Your task to perform on an android device: all mails in gmail Image 0: 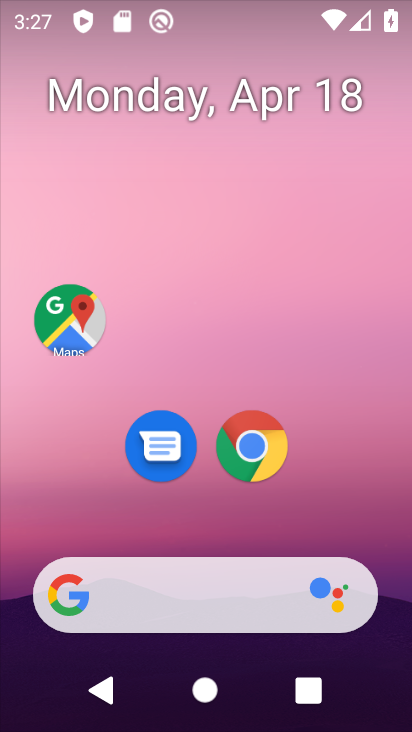
Step 0: drag from (281, 549) to (304, 127)
Your task to perform on an android device: all mails in gmail Image 1: 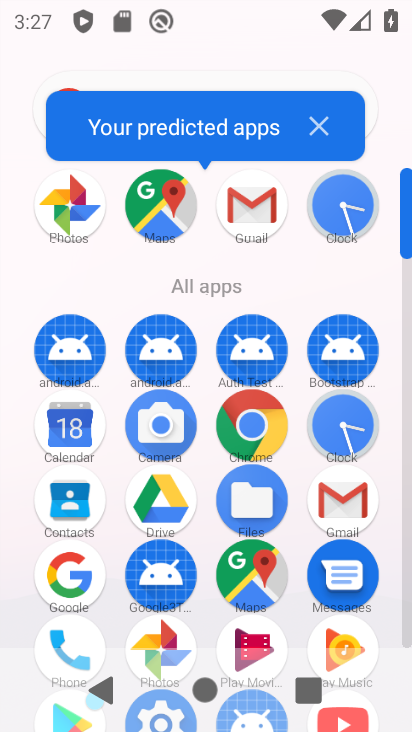
Step 1: click (263, 208)
Your task to perform on an android device: all mails in gmail Image 2: 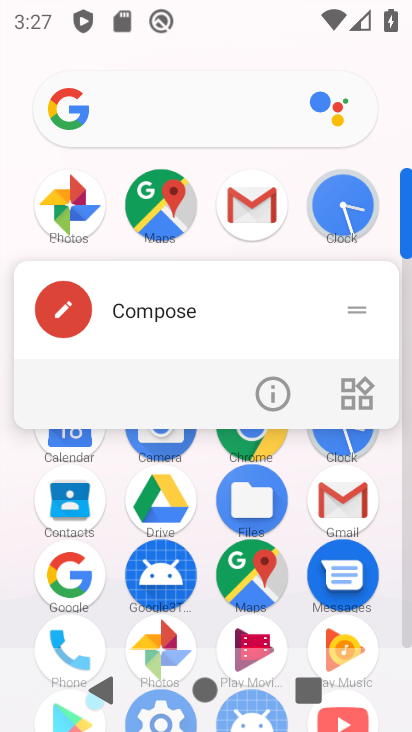
Step 2: click (264, 207)
Your task to perform on an android device: all mails in gmail Image 3: 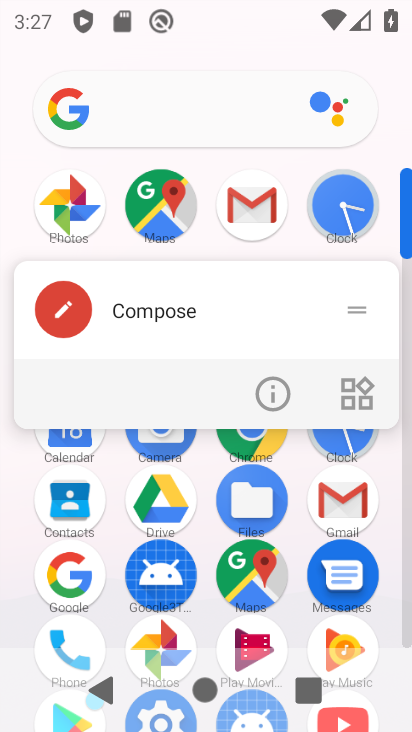
Step 3: click (265, 207)
Your task to perform on an android device: all mails in gmail Image 4: 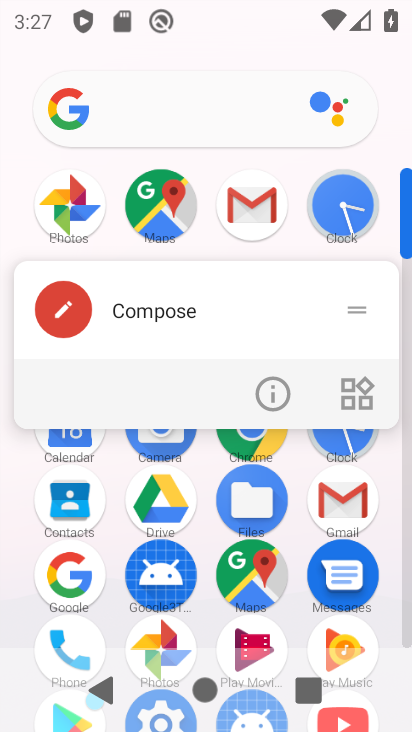
Step 4: click (267, 187)
Your task to perform on an android device: all mails in gmail Image 5: 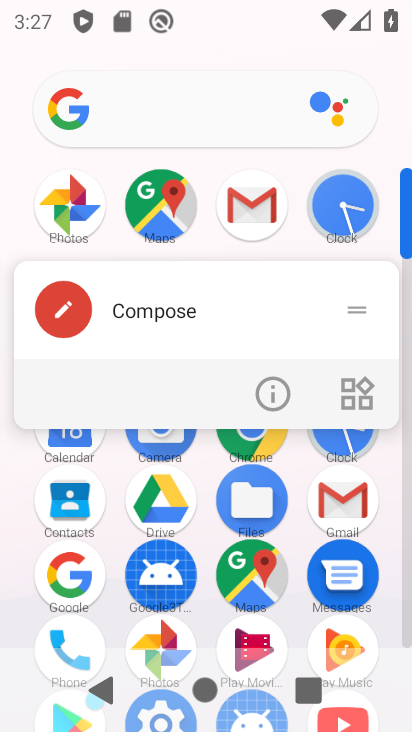
Step 5: click (268, 193)
Your task to perform on an android device: all mails in gmail Image 6: 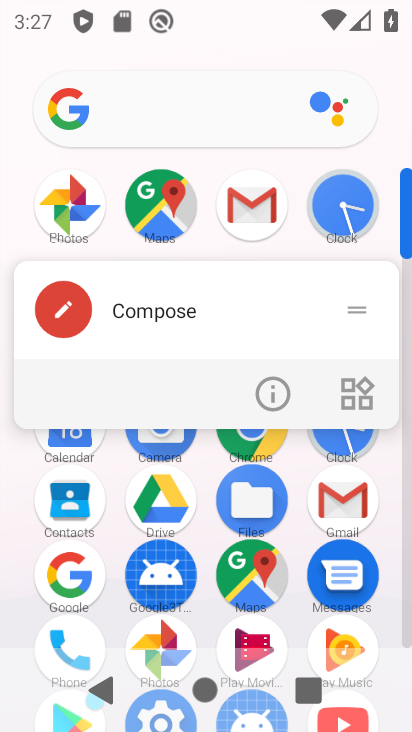
Step 6: click (259, 217)
Your task to perform on an android device: all mails in gmail Image 7: 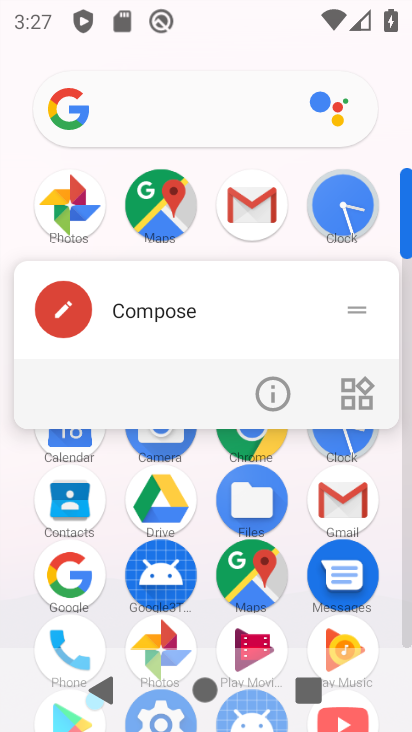
Step 7: click (259, 218)
Your task to perform on an android device: all mails in gmail Image 8: 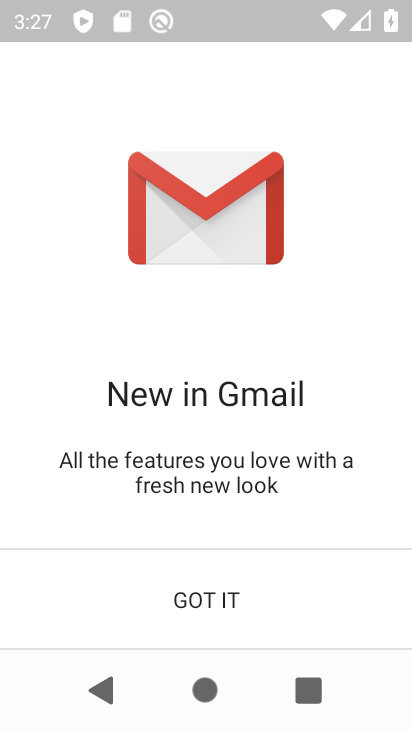
Step 8: click (229, 585)
Your task to perform on an android device: all mails in gmail Image 9: 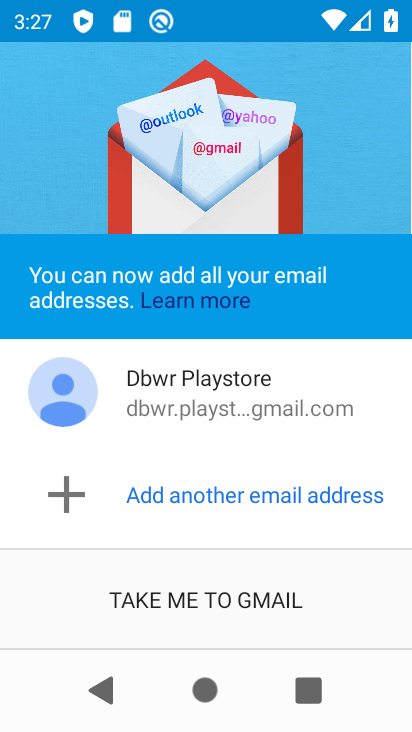
Step 9: click (256, 604)
Your task to perform on an android device: all mails in gmail Image 10: 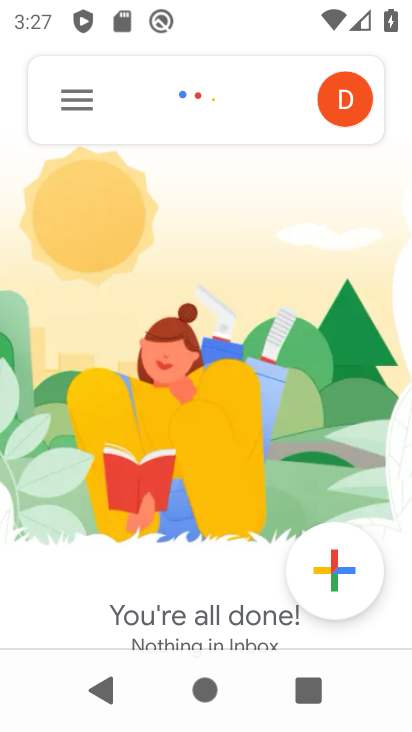
Step 10: click (81, 102)
Your task to perform on an android device: all mails in gmail Image 11: 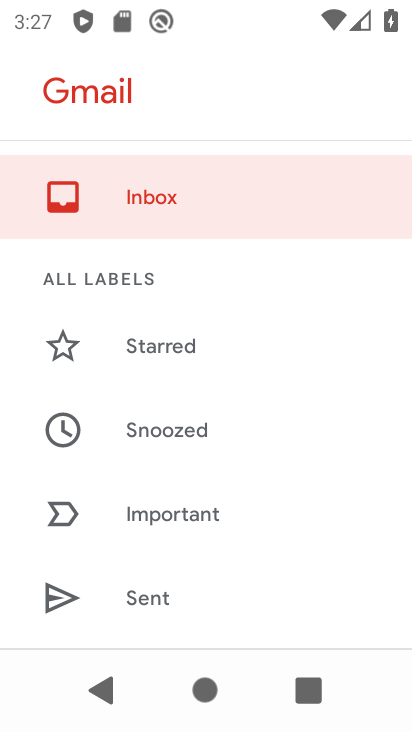
Step 11: drag from (283, 555) to (374, 143)
Your task to perform on an android device: all mails in gmail Image 12: 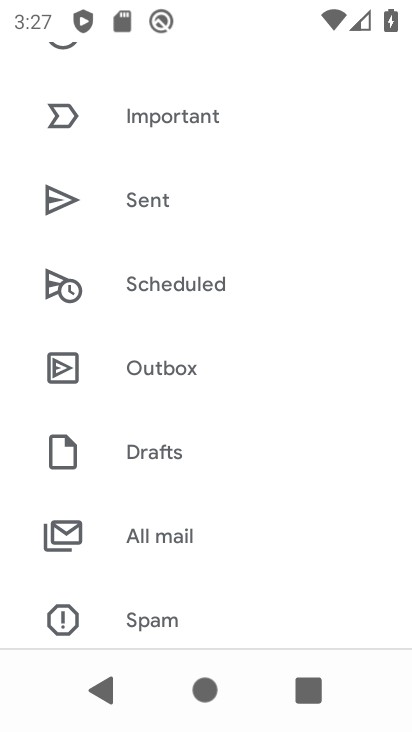
Step 12: click (254, 530)
Your task to perform on an android device: all mails in gmail Image 13: 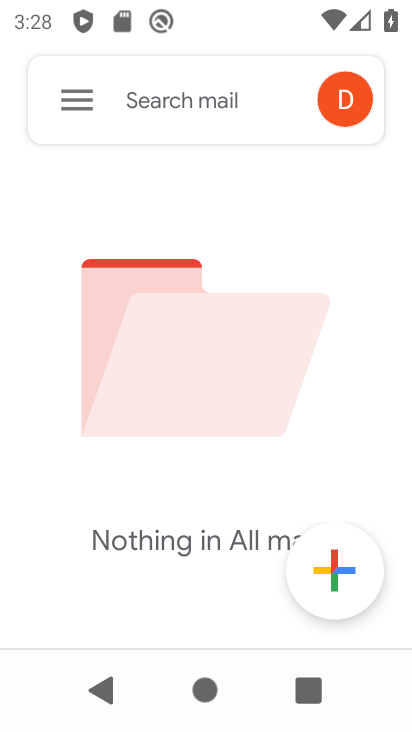
Step 13: task complete